Your task to perform on an android device: check out phone information Image 0: 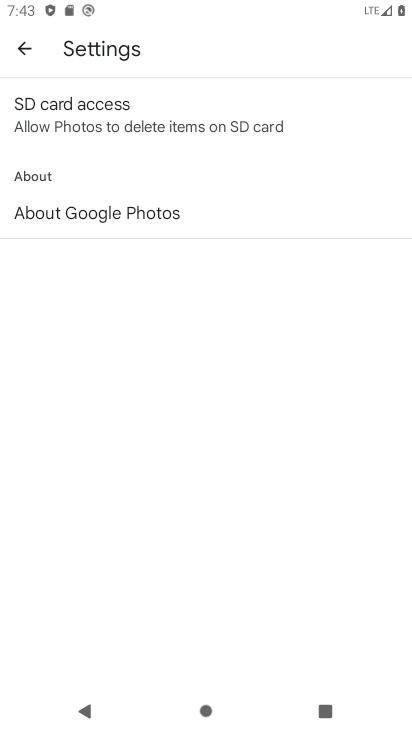
Step 0: press home button
Your task to perform on an android device: check out phone information Image 1: 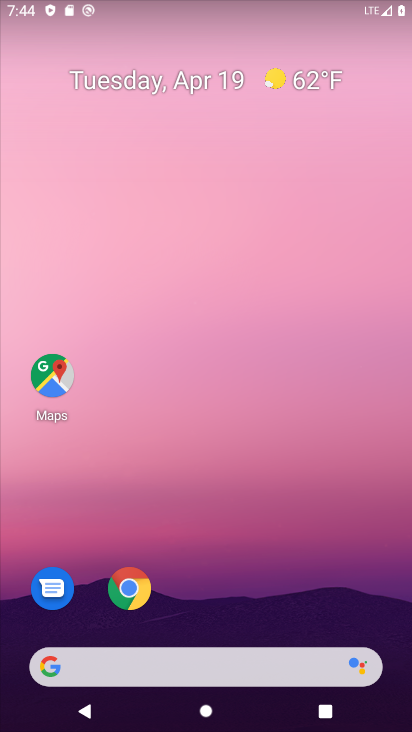
Step 1: drag from (262, 563) to (234, 187)
Your task to perform on an android device: check out phone information Image 2: 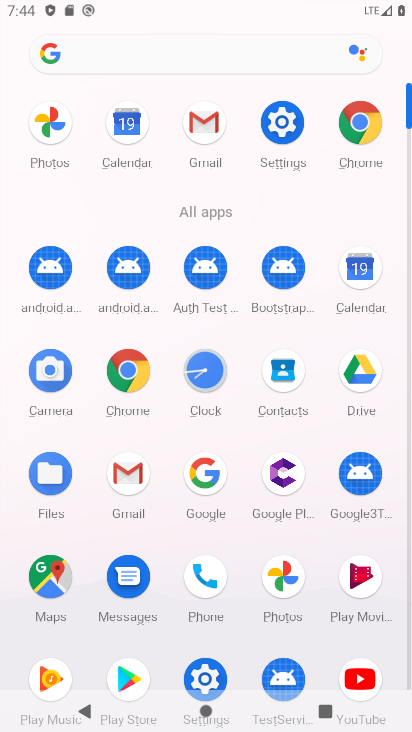
Step 2: click (283, 131)
Your task to perform on an android device: check out phone information Image 3: 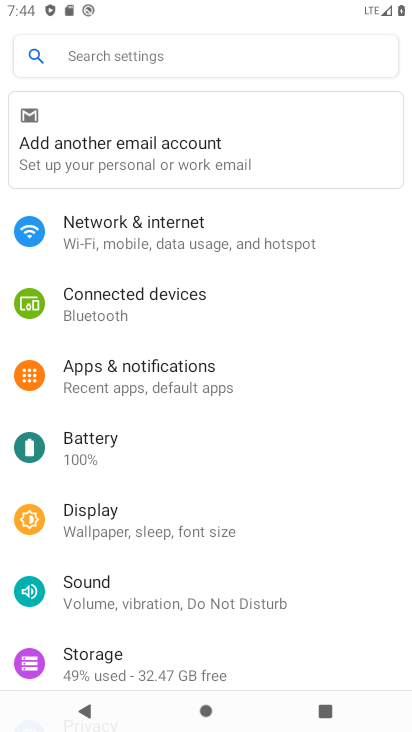
Step 3: drag from (252, 632) to (381, 6)
Your task to perform on an android device: check out phone information Image 4: 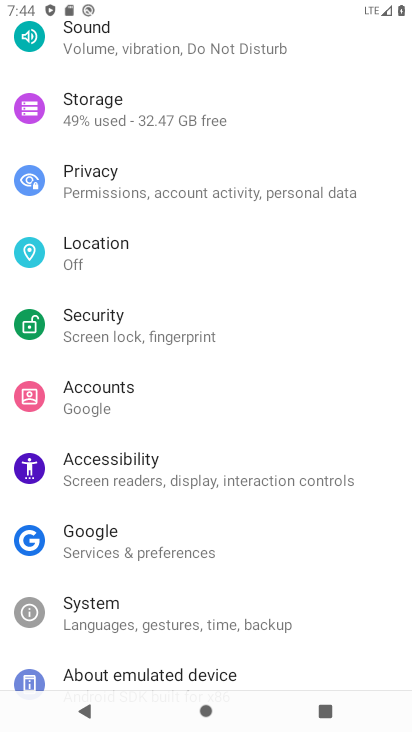
Step 4: drag from (249, 544) to (343, 0)
Your task to perform on an android device: check out phone information Image 5: 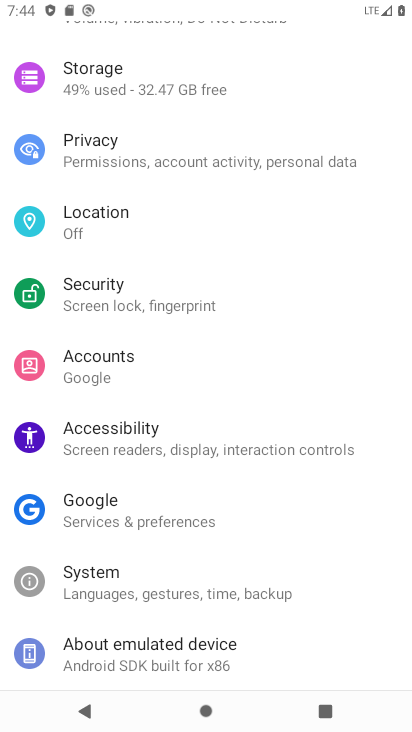
Step 5: click (168, 645)
Your task to perform on an android device: check out phone information Image 6: 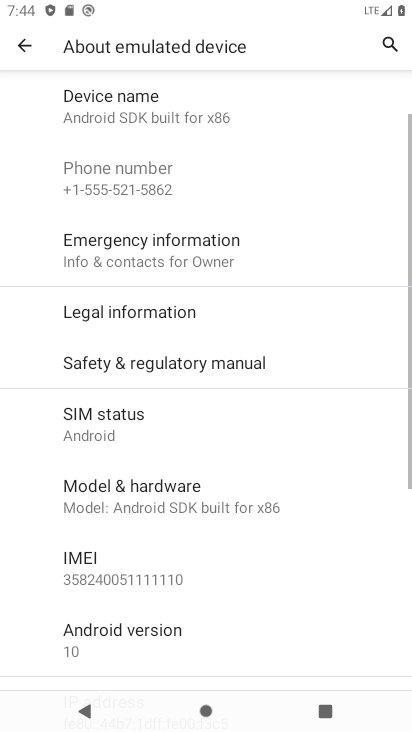
Step 6: task complete